Your task to perform on an android device: toggle notifications settings in the gmail app Image 0: 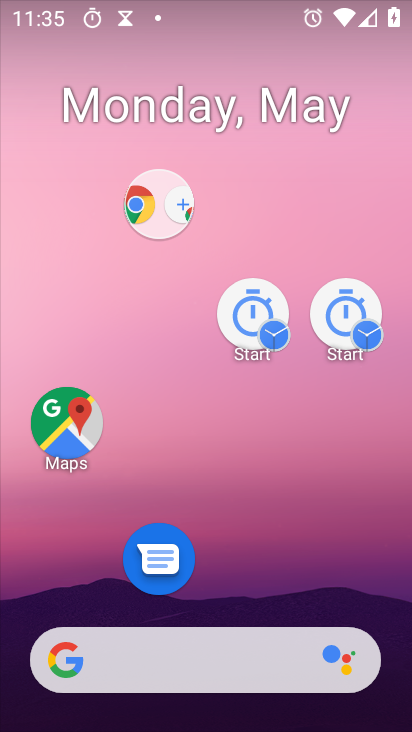
Step 0: drag from (220, 628) to (159, 219)
Your task to perform on an android device: toggle notifications settings in the gmail app Image 1: 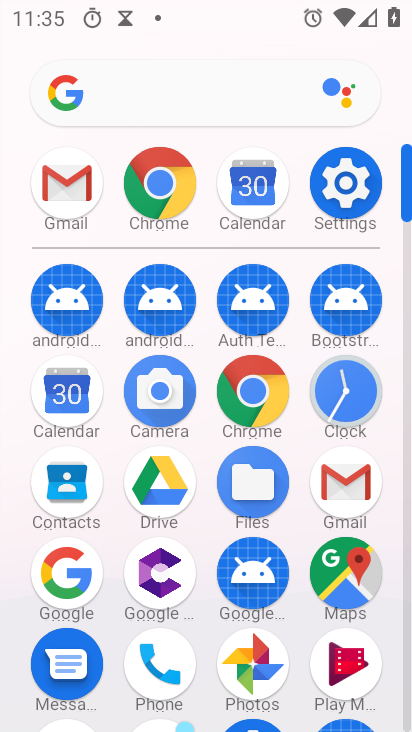
Step 1: click (338, 482)
Your task to perform on an android device: toggle notifications settings in the gmail app Image 2: 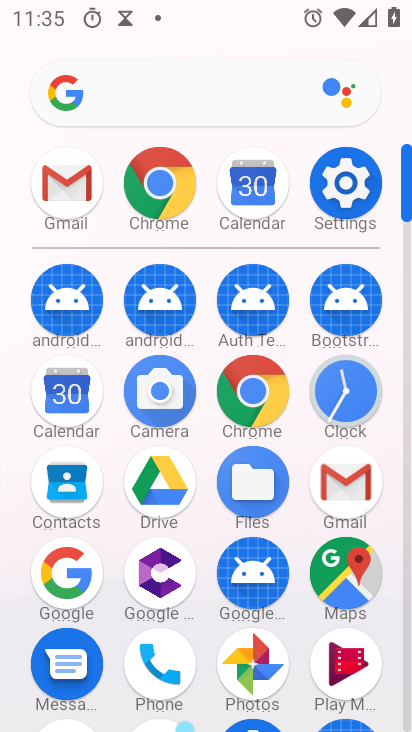
Step 2: click (338, 482)
Your task to perform on an android device: toggle notifications settings in the gmail app Image 3: 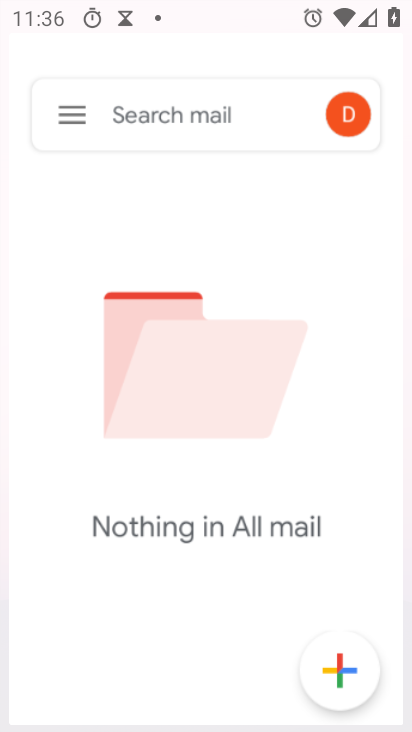
Step 3: click (338, 482)
Your task to perform on an android device: toggle notifications settings in the gmail app Image 4: 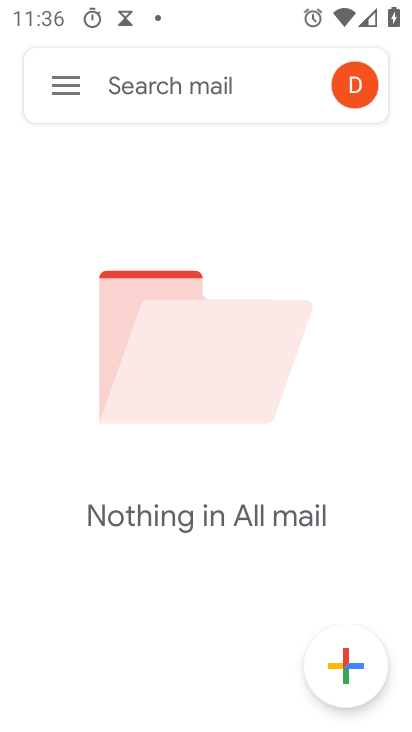
Step 4: press back button
Your task to perform on an android device: toggle notifications settings in the gmail app Image 5: 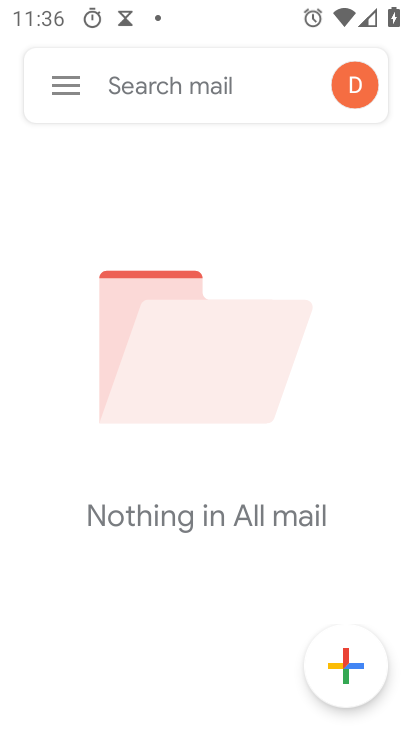
Step 5: press back button
Your task to perform on an android device: toggle notifications settings in the gmail app Image 6: 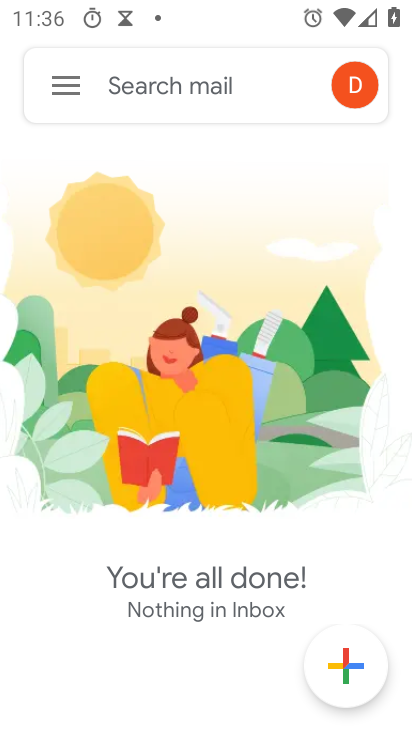
Step 6: press back button
Your task to perform on an android device: toggle notifications settings in the gmail app Image 7: 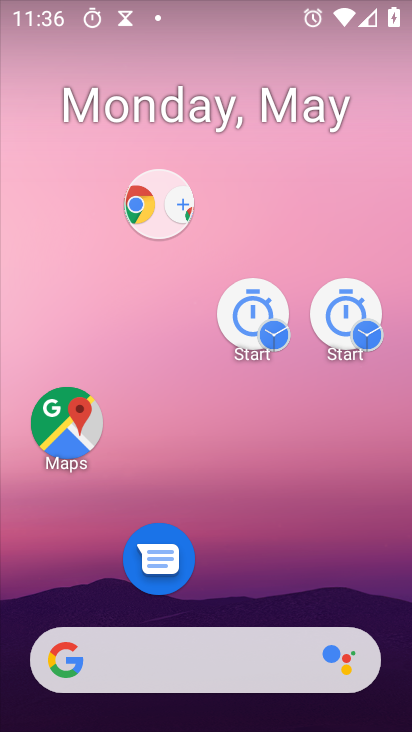
Step 7: drag from (228, 685) to (135, 105)
Your task to perform on an android device: toggle notifications settings in the gmail app Image 8: 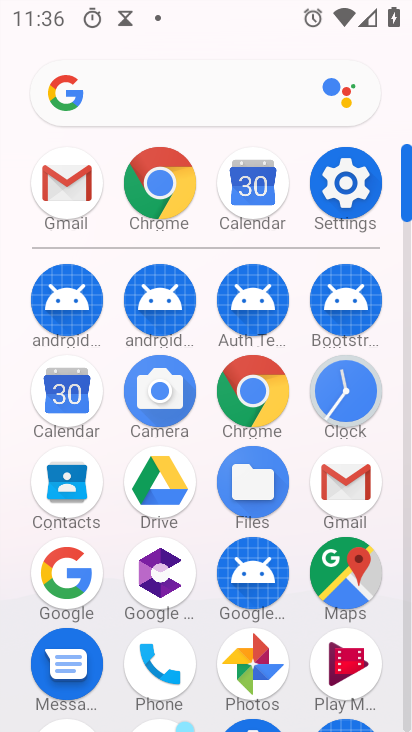
Step 8: click (350, 478)
Your task to perform on an android device: toggle notifications settings in the gmail app Image 9: 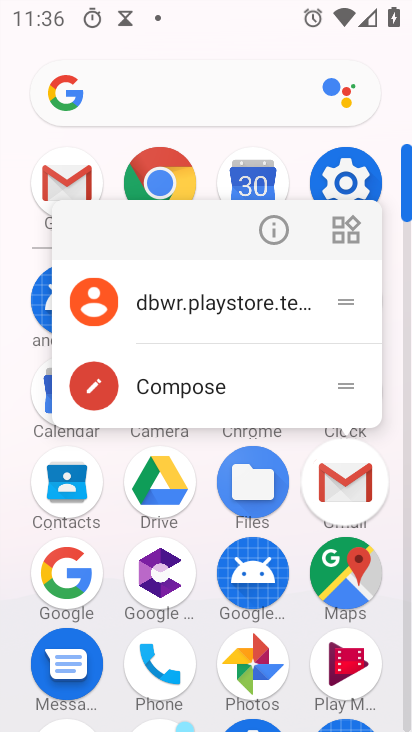
Step 9: click (349, 480)
Your task to perform on an android device: toggle notifications settings in the gmail app Image 10: 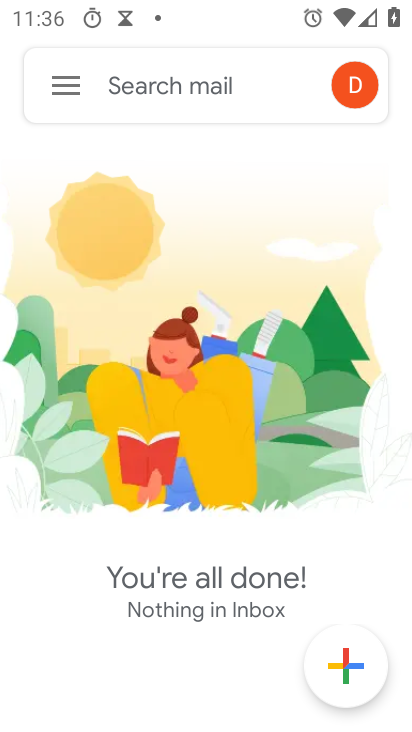
Step 10: click (72, 96)
Your task to perform on an android device: toggle notifications settings in the gmail app Image 11: 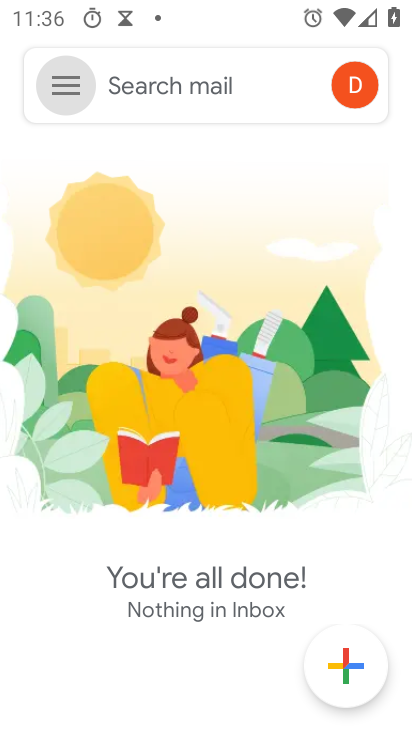
Step 11: click (70, 94)
Your task to perform on an android device: toggle notifications settings in the gmail app Image 12: 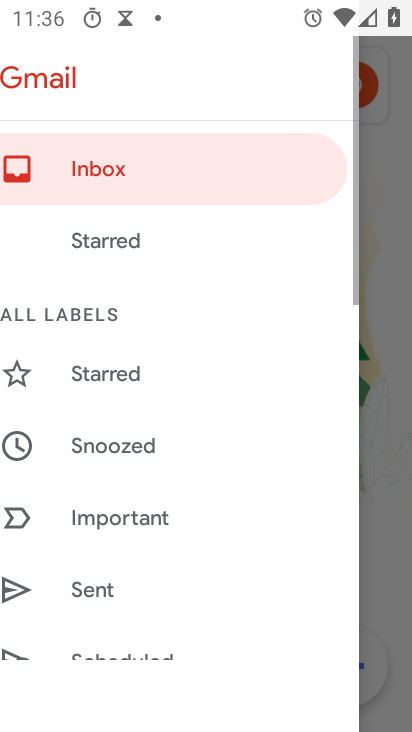
Step 12: click (68, 94)
Your task to perform on an android device: toggle notifications settings in the gmail app Image 13: 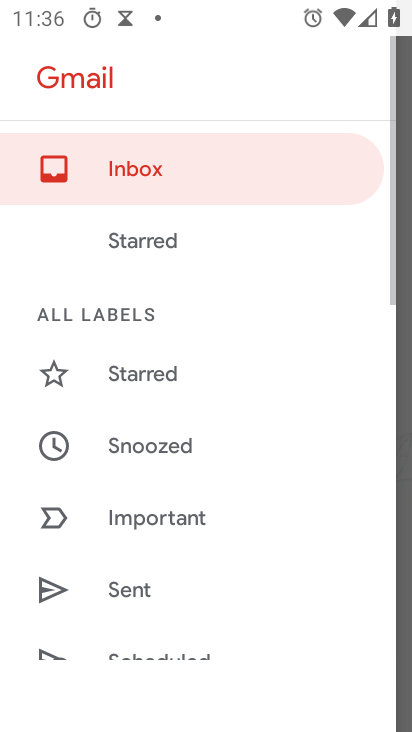
Step 13: drag from (134, 555) to (144, 188)
Your task to perform on an android device: toggle notifications settings in the gmail app Image 14: 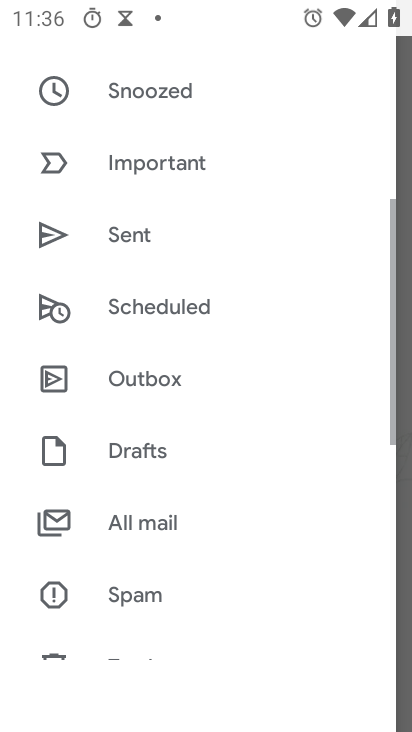
Step 14: drag from (143, 561) to (123, 241)
Your task to perform on an android device: toggle notifications settings in the gmail app Image 15: 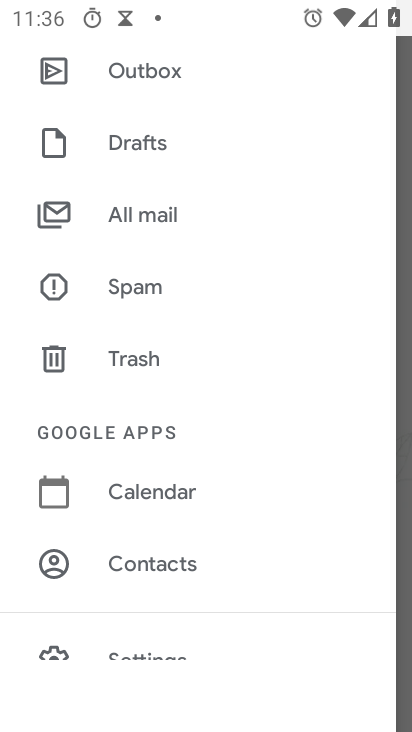
Step 15: drag from (109, 525) to (99, 203)
Your task to perform on an android device: toggle notifications settings in the gmail app Image 16: 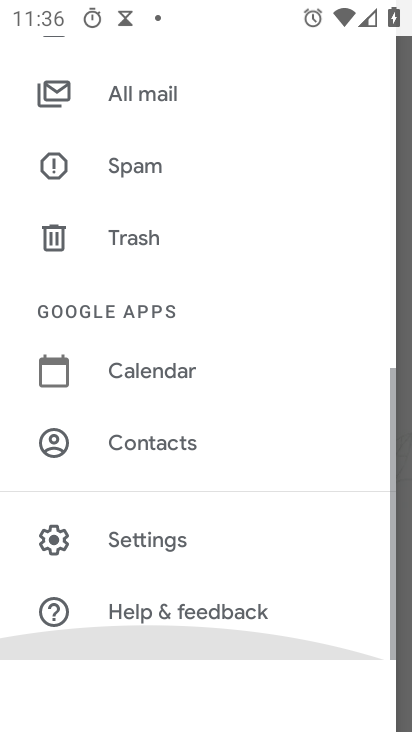
Step 16: drag from (145, 397) to (106, 173)
Your task to perform on an android device: toggle notifications settings in the gmail app Image 17: 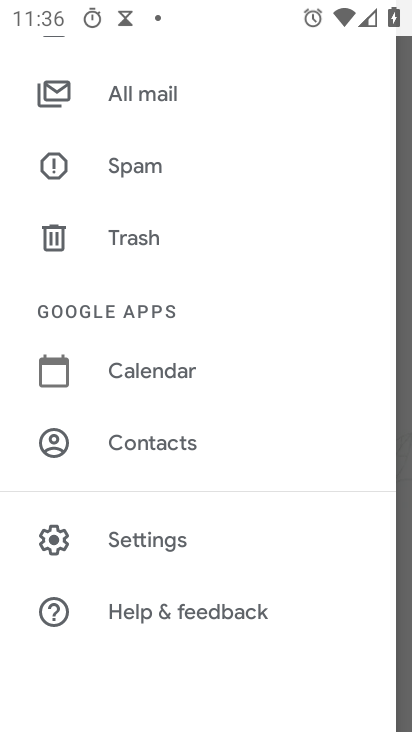
Step 17: click (130, 536)
Your task to perform on an android device: toggle notifications settings in the gmail app Image 18: 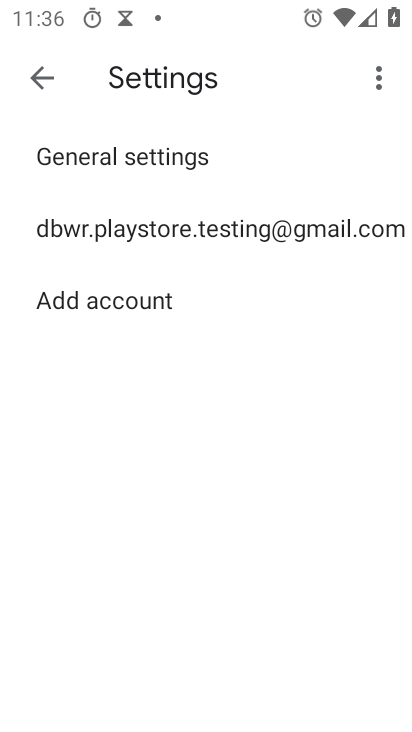
Step 18: click (145, 224)
Your task to perform on an android device: toggle notifications settings in the gmail app Image 19: 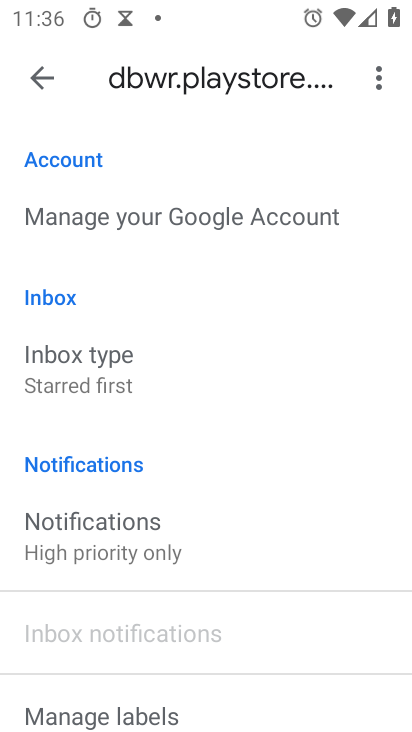
Step 19: click (113, 525)
Your task to perform on an android device: toggle notifications settings in the gmail app Image 20: 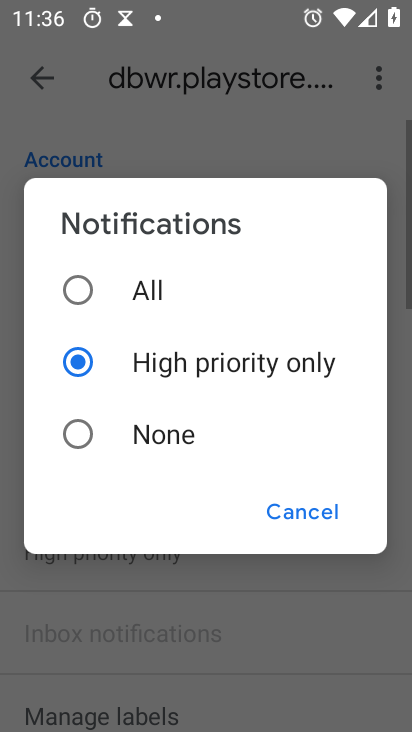
Step 20: click (87, 530)
Your task to perform on an android device: toggle notifications settings in the gmail app Image 21: 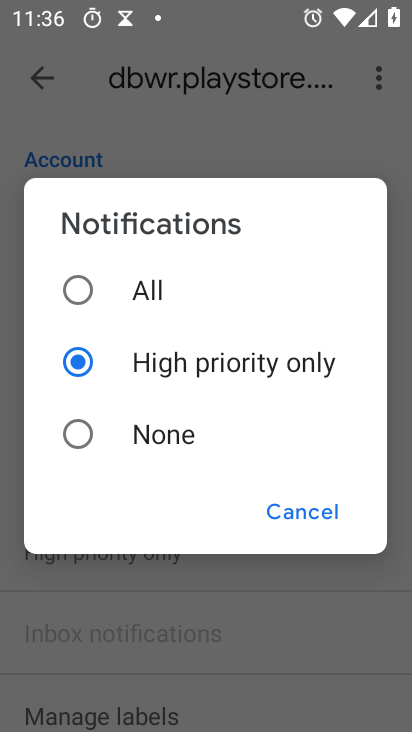
Step 21: click (83, 289)
Your task to perform on an android device: toggle notifications settings in the gmail app Image 22: 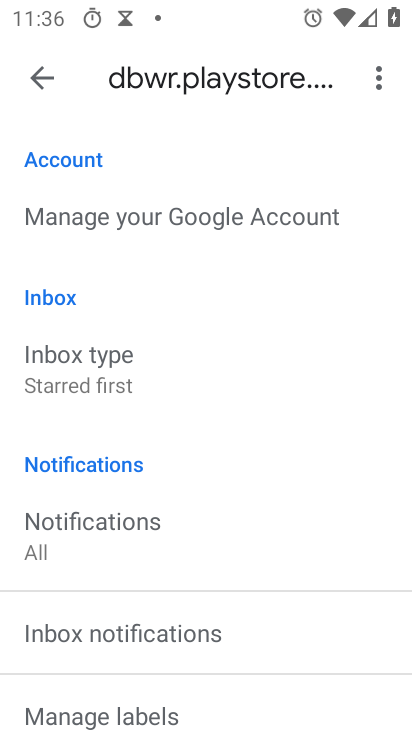
Step 22: task complete